Your task to perform on an android device: Search for the best books on Goodreads Image 0: 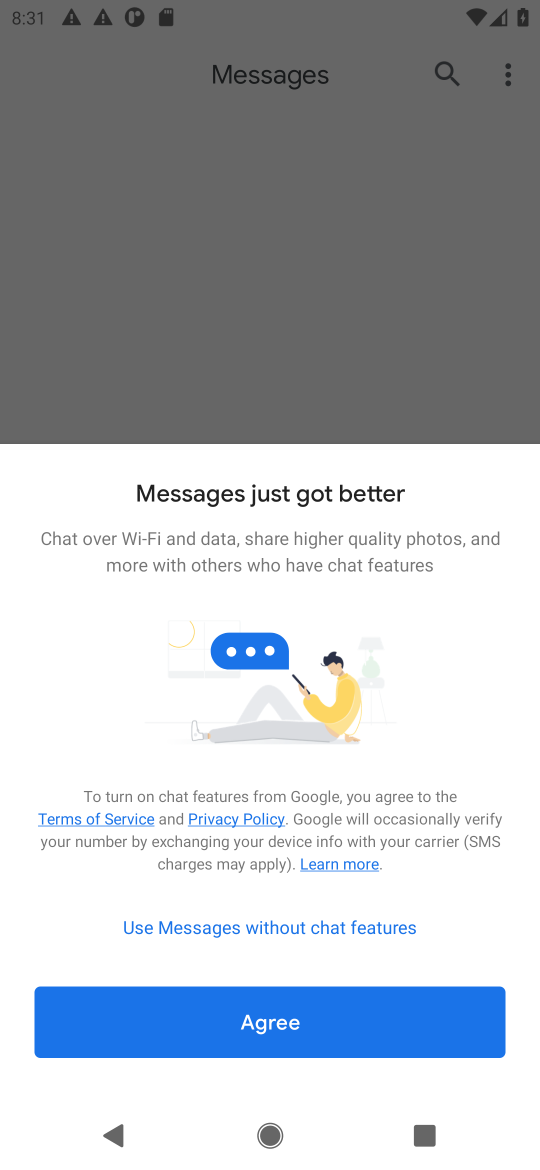
Step 0: press home button
Your task to perform on an android device: Search for the best books on Goodreads Image 1: 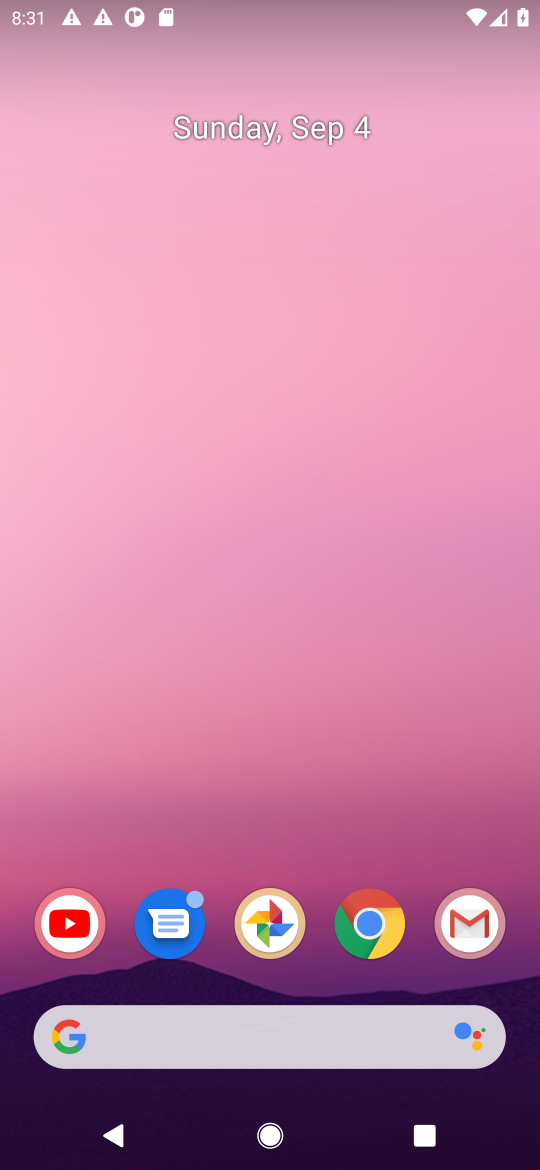
Step 1: click (378, 932)
Your task to perform on an android device: Search for the best books on Goodreads Image 2: 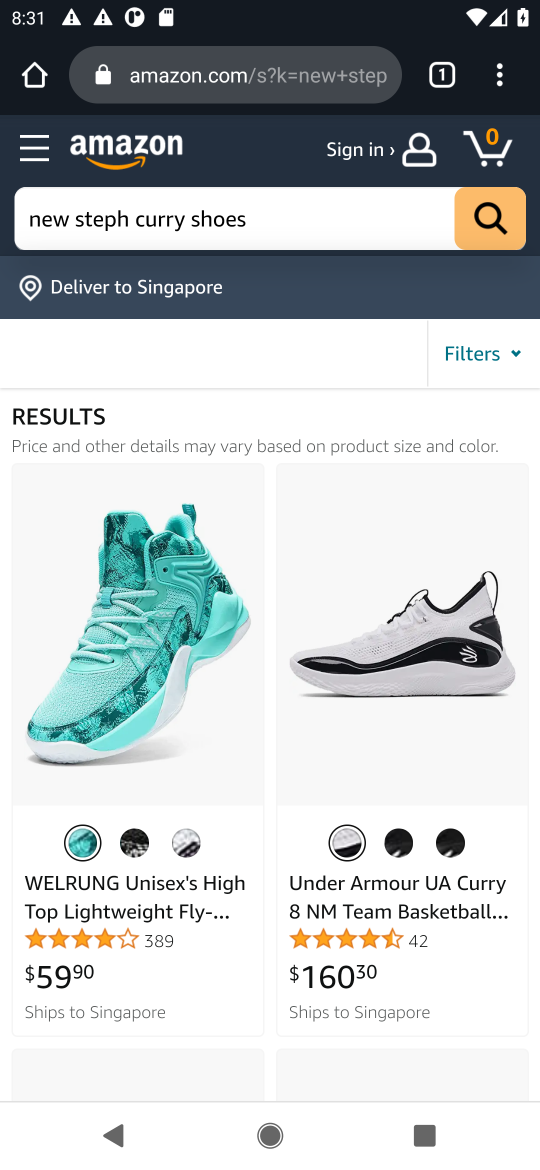
Step 2: click (269, 79)
Your task to perform on an android device: Search for the best books on Goodreads Image 3: 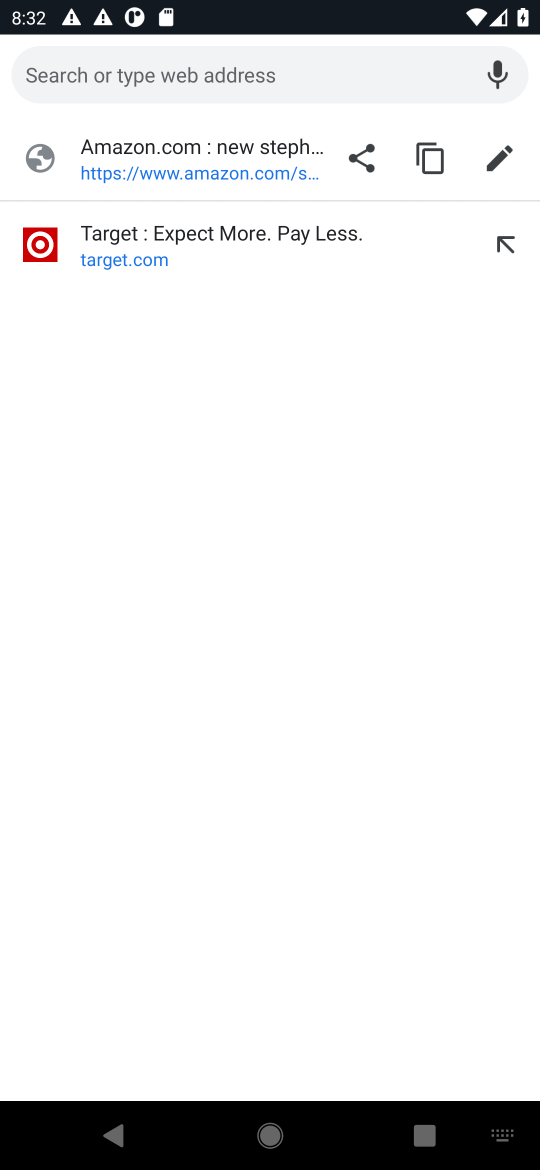
Step 3: type "goodreads"
Your task to perform on an android device: Search for the best books on Goodreads Image 4: 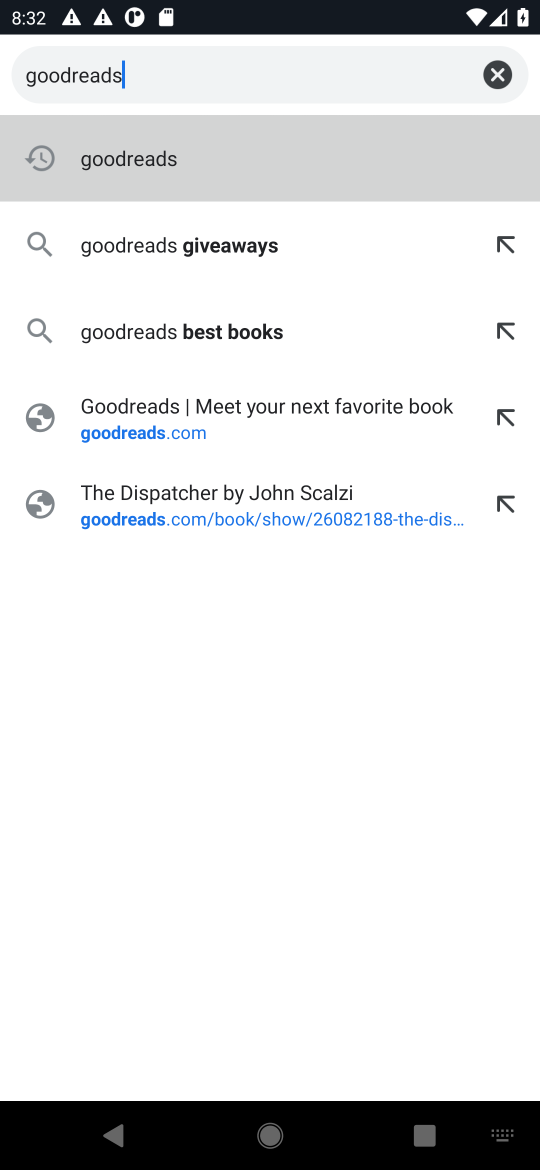
Step 4: click (298, 415)
Your task to perform on an android device: Search for the best books on Goodreads Image 5: 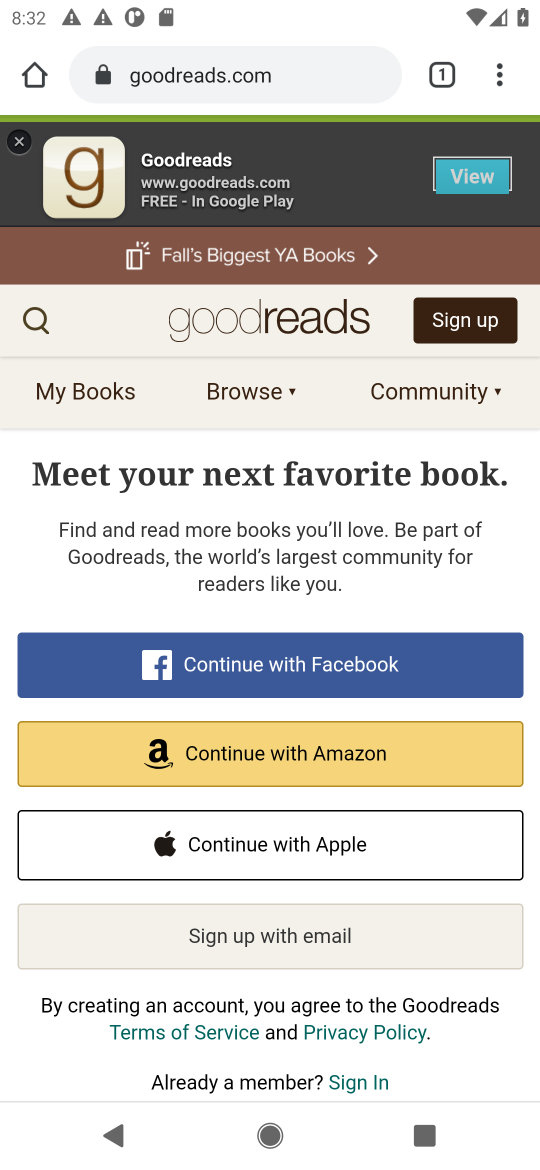
Step 5: click (270, 399)
Your task to perform on an android device: Search for the best books on Goodreads Image 6: 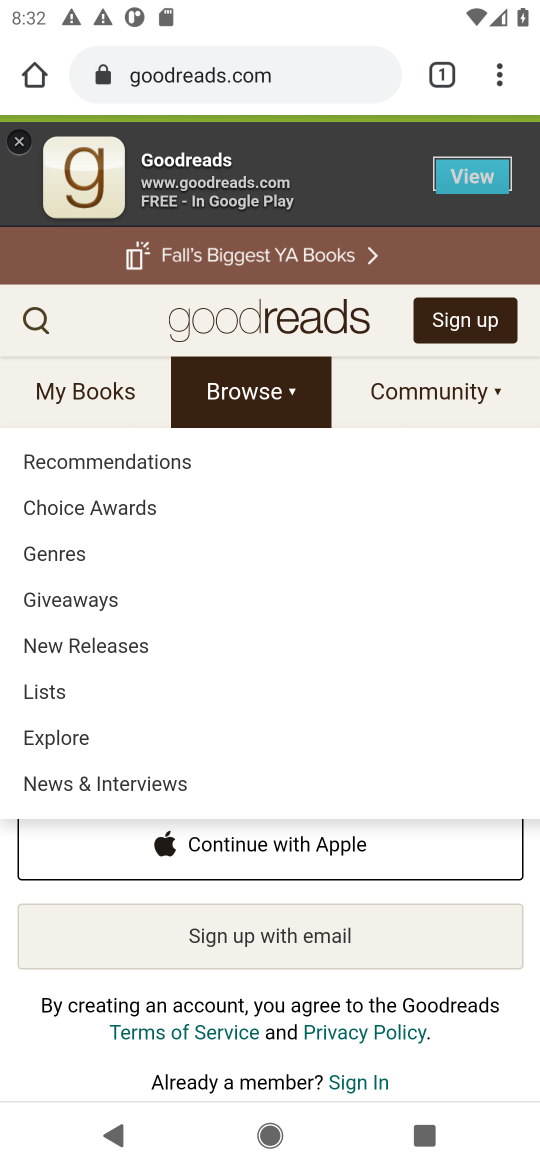
Step 6: click (270, 399)
Your task to perform on an android device: Search for the best books on Goodreads Image 7: 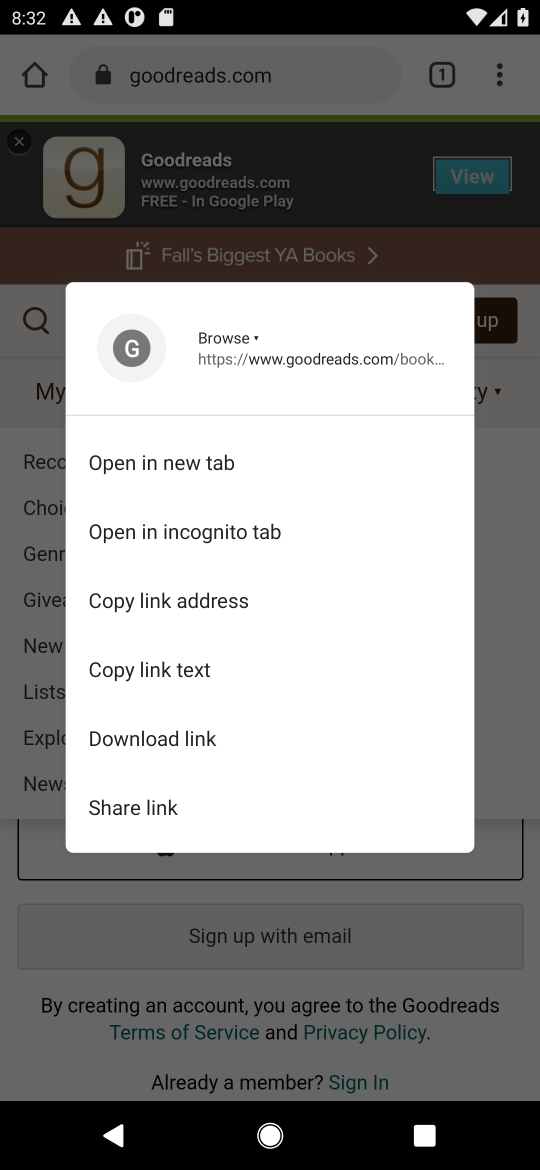
Step 7: click (33, 402)
Your task to perform on an android device: Search for the best books on Goodreads Image 8: 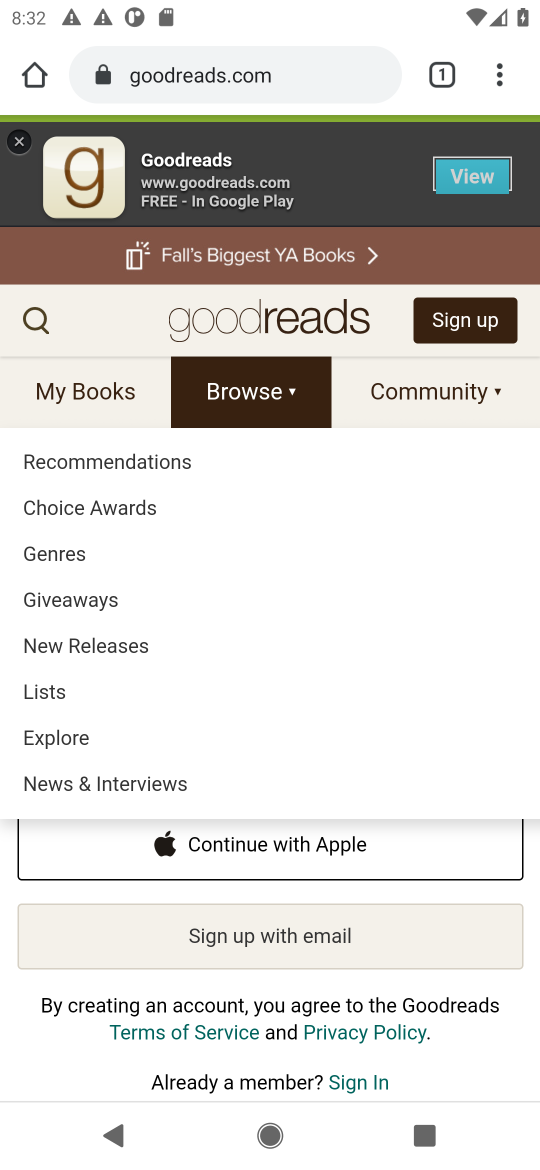
Step 8: click (38, 339)
Your task to perform on an android device: Search for the best books on Goodreads Image 9: 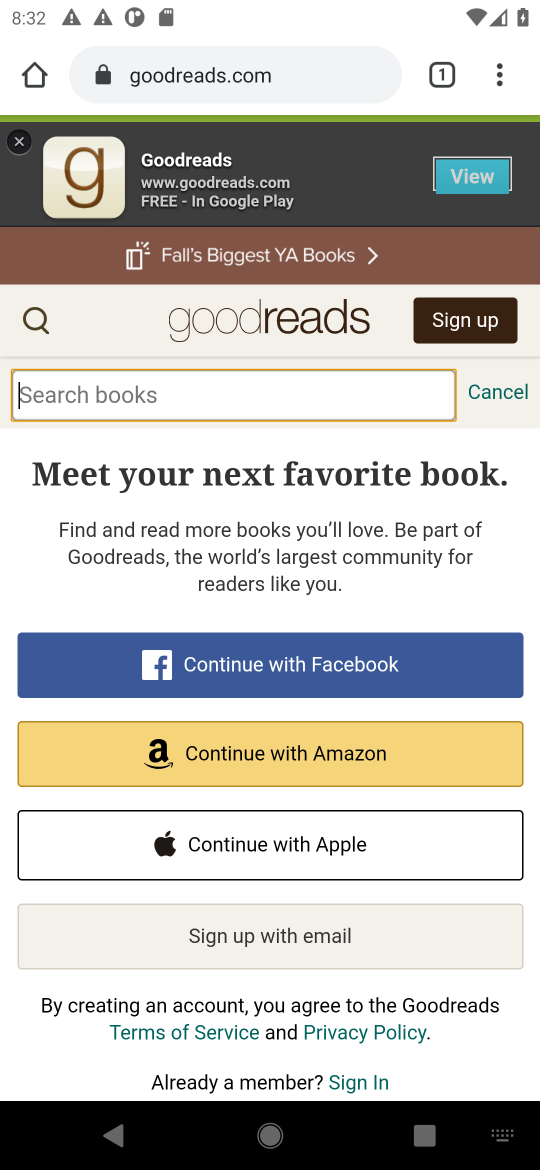
Step 9: type "best books"
Your task to perform on an android device: Search for the best books on Goodreads Image 10: 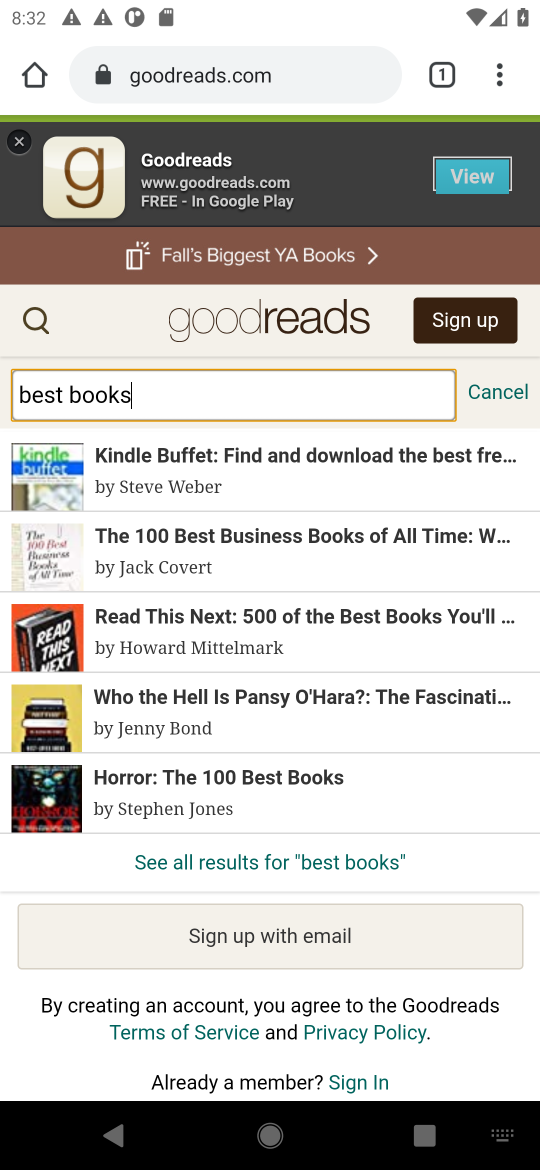
Step 10: press enter
Your task to perform on an android device: Search for the best books on Goodreads Image 11: 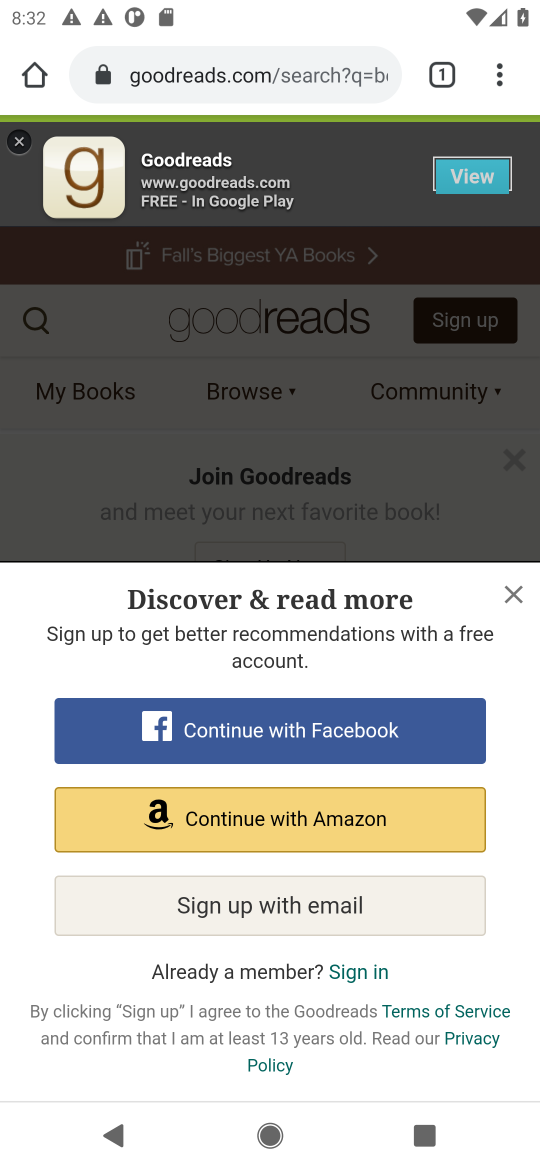
Step 11: click (514, 595)
Your task to perform on an android device: Search for the best books on Goodreads Image 12: 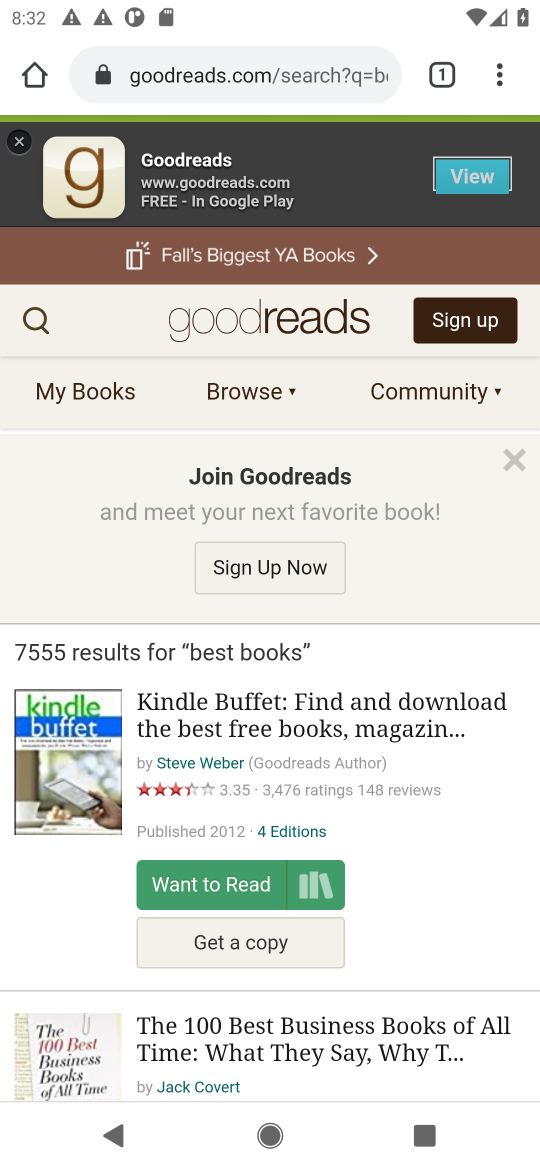
Step 12: task complete